Your task to perform on an android device: Check the weather Image 0: 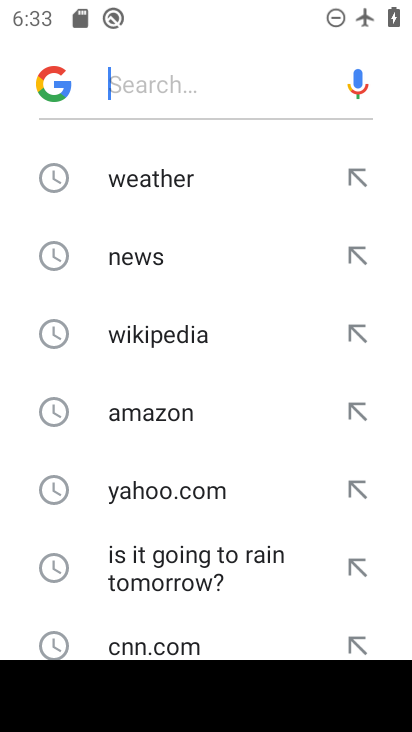
Step 0: click (171, 177)
Your task to perform on an android device: Check the weather Image 1: 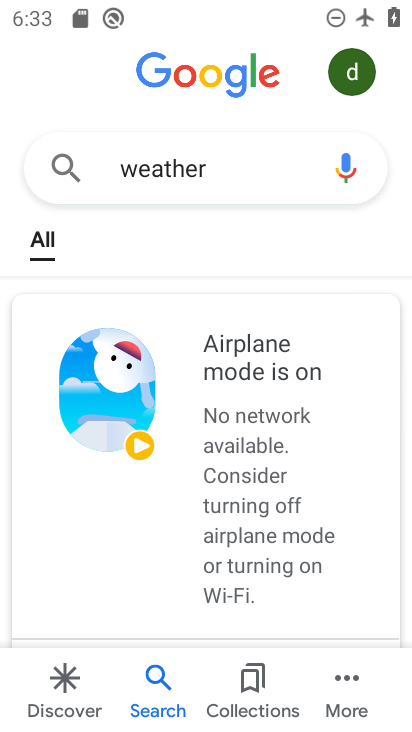
Step 1: task complete